Your task to perform on an android device: Add macbook pro to the cart on ebay.com Image 0: 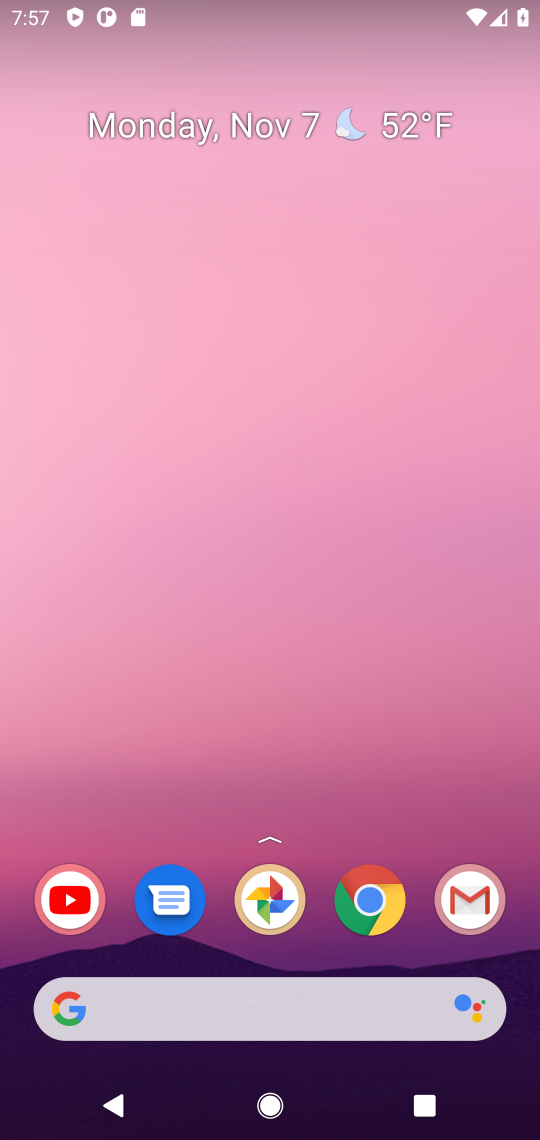
Step 0: click (300, 1024)
Your task to perform on an android device: Add macbook pro to the cart on ebay.com Image 1: 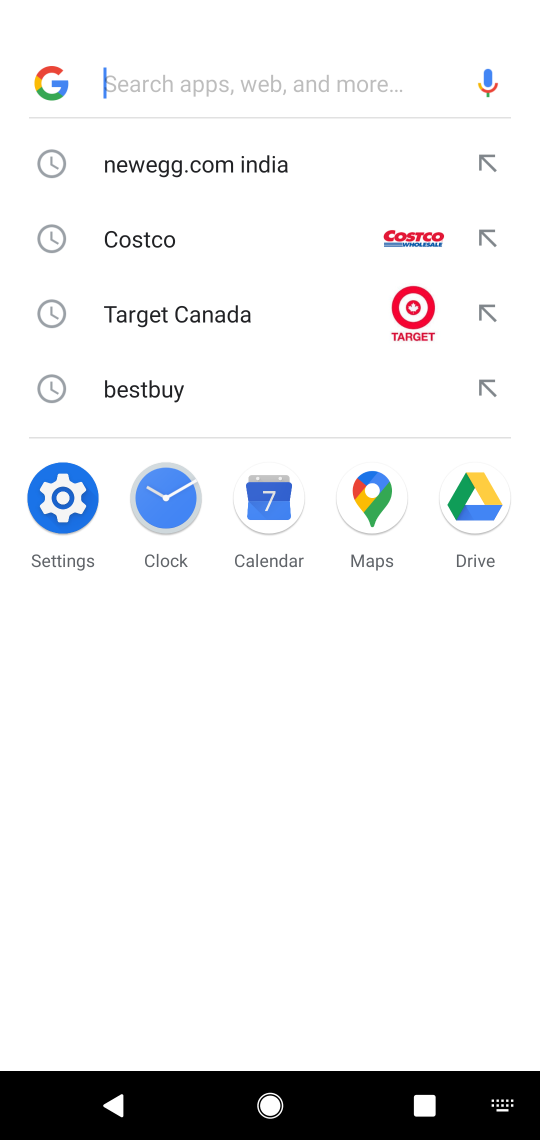
Step 1: type "ebay"
Your task to perform on an android device: Add macbook pro to the cart on ebay.com Image 2: 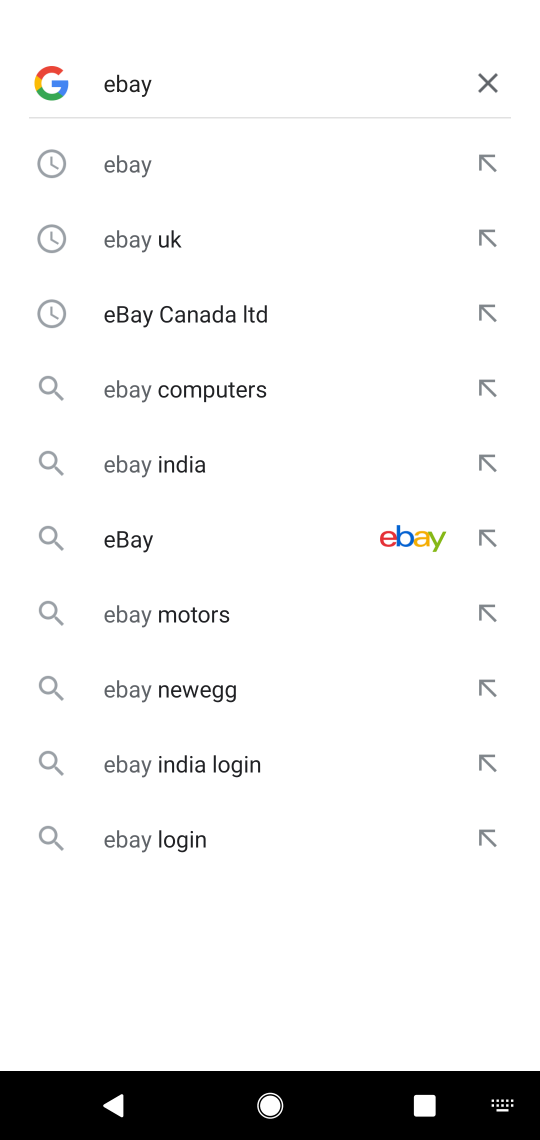
Step 2: click (300, 537)
Your task to perform on an android device: Add macbook pro to the cart on ebay.com Image 3: 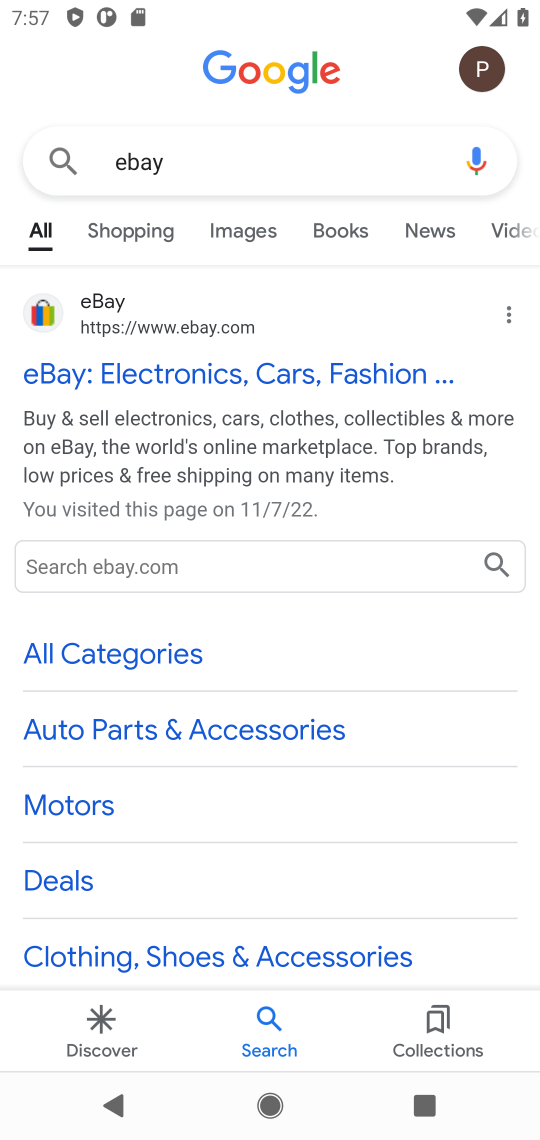
Step 3: click (187, 382)
Your task to perform on an android device: Add macbook pro to the cart on ebay.com Image 4: 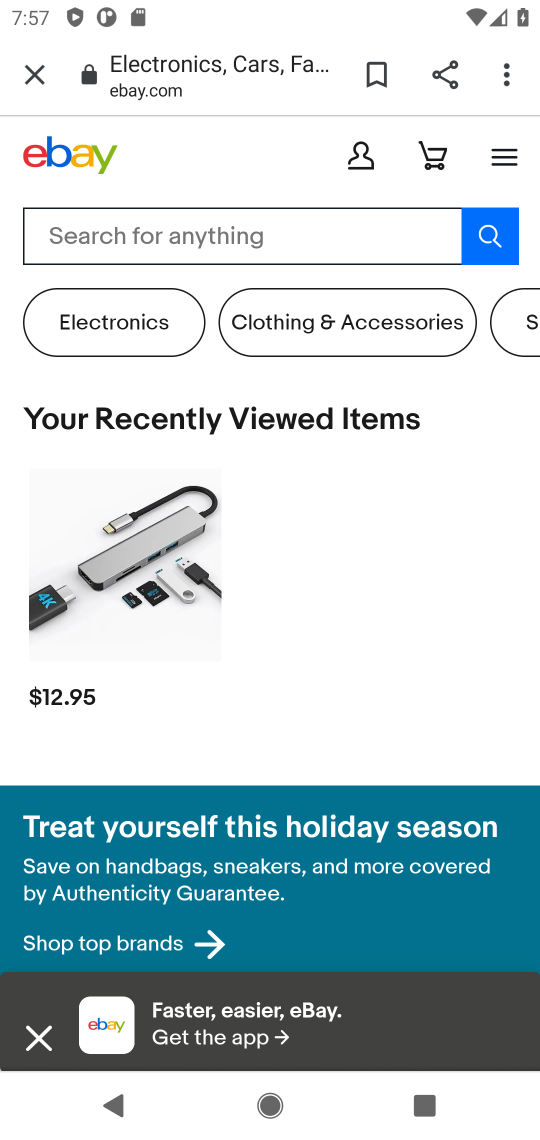
Step 4: click (330, 215)
Your task to perform on an android device: Add macbook pro to the cart on ebay.com Image 5: 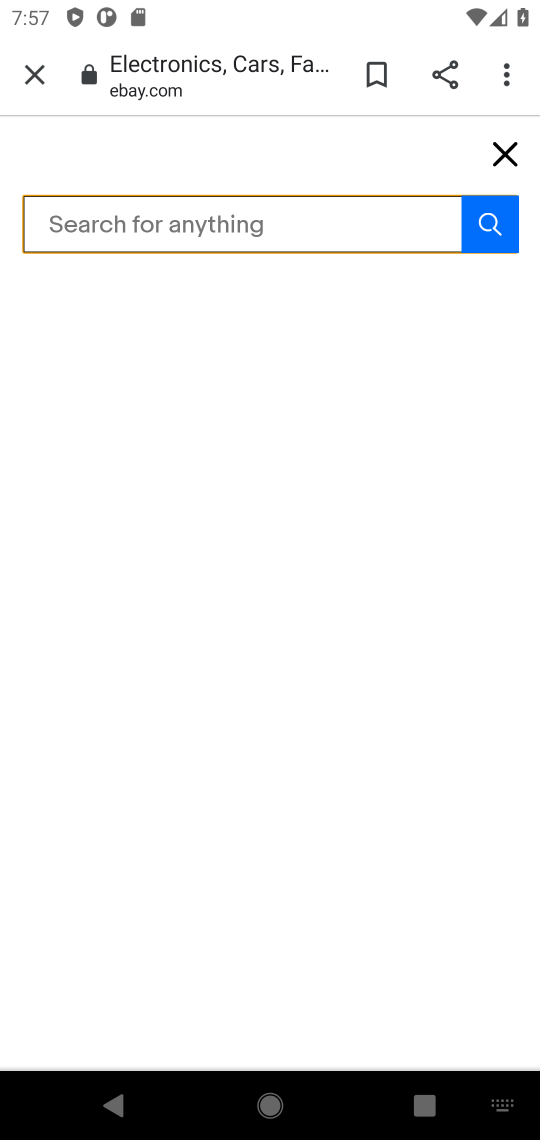
Step 5: type "macbook pro"
Your task to perform on an android device: Add macbook pro to the cart on ebay.com Image 6: 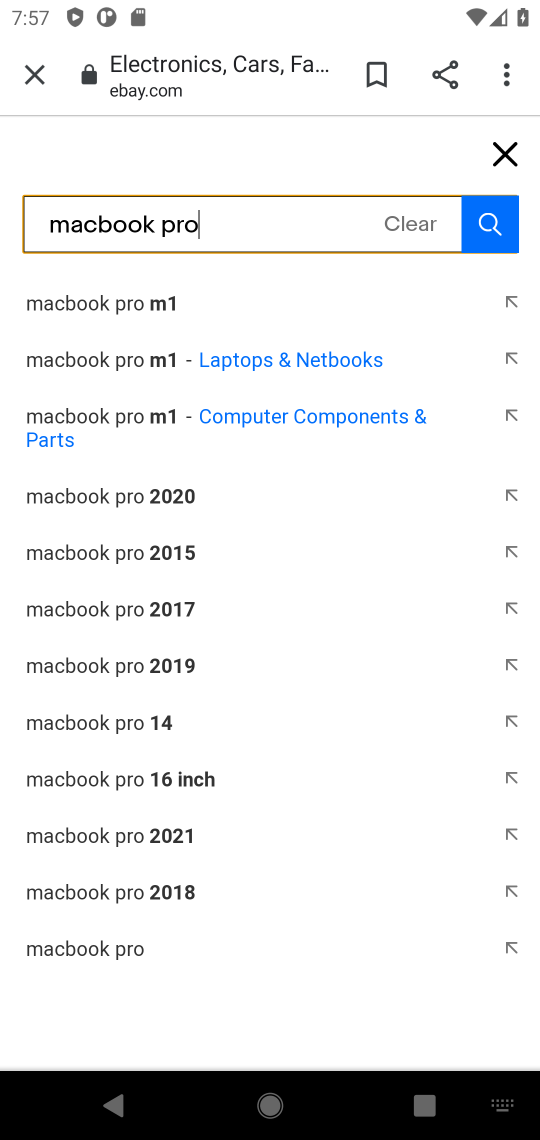
Step 6: click (479, 226)
Your task to perform on an android device: Add macbook pro to the cart on ebay.com Image 7: 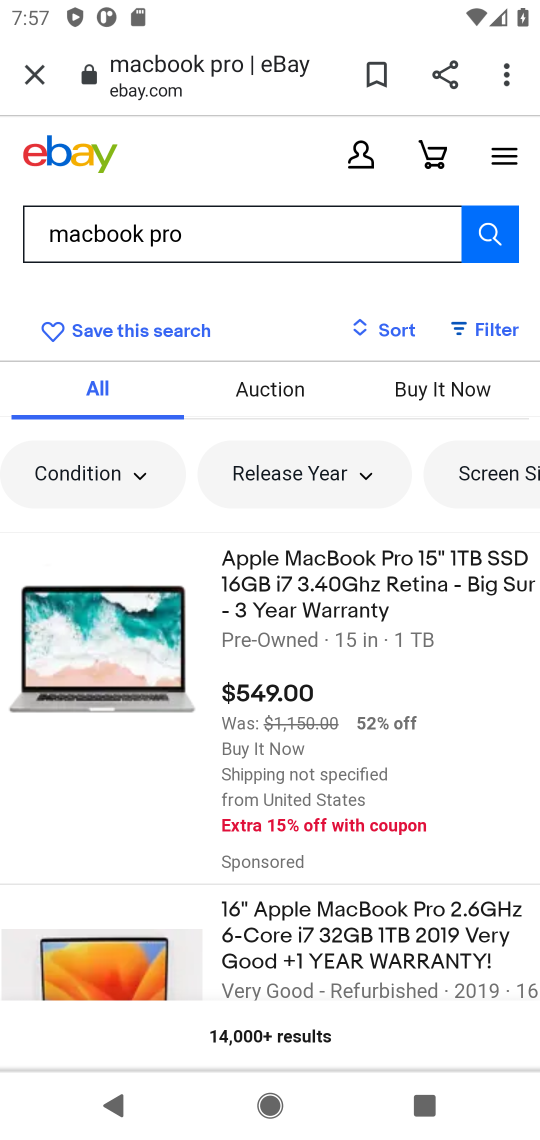
Step 7: click (237, 578)
Your task to perform on an android device: Add macbook pro to the cart on ebay.com Image 8: 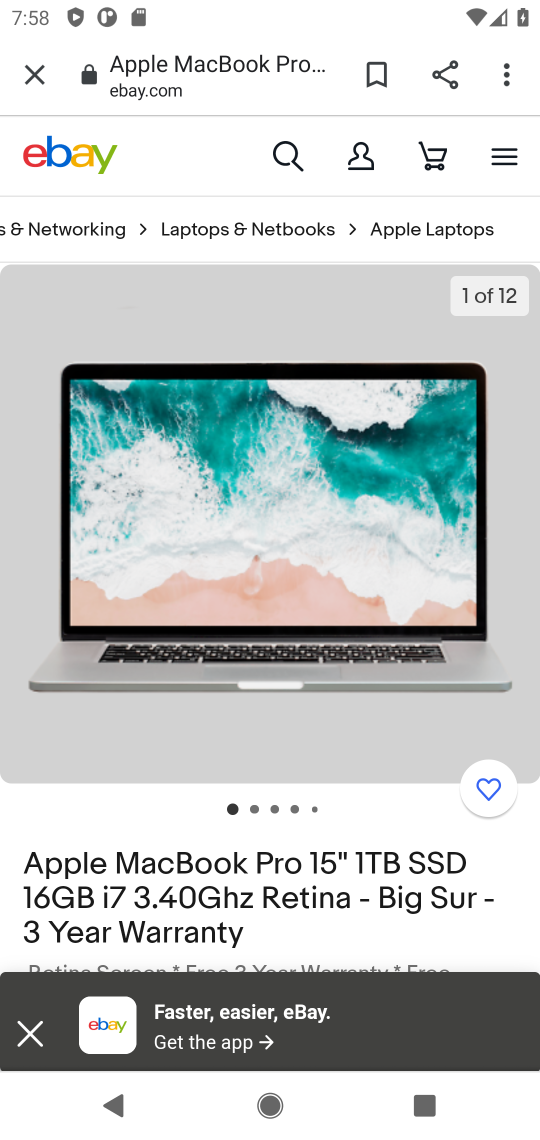
Step 8: drag from (400, 819) to (431, 343)
Your task to perform on an android device: Add macbook pro to the cart on ebay.com Image 9: 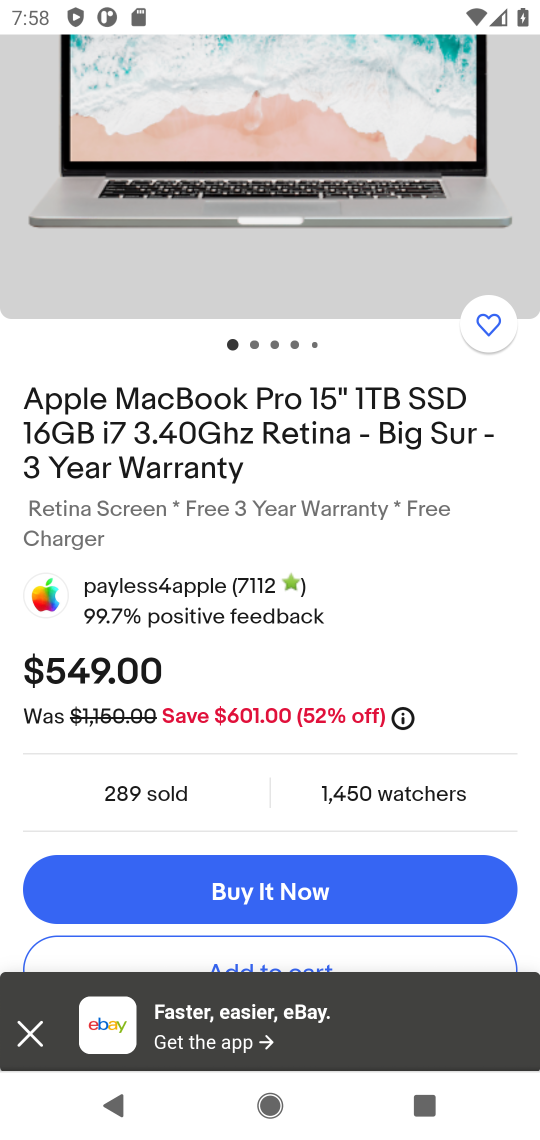
Step 9: click (313, 948)
Your task to perform on an android device: Add macbook pro to the cart on ebay.com Image 10: 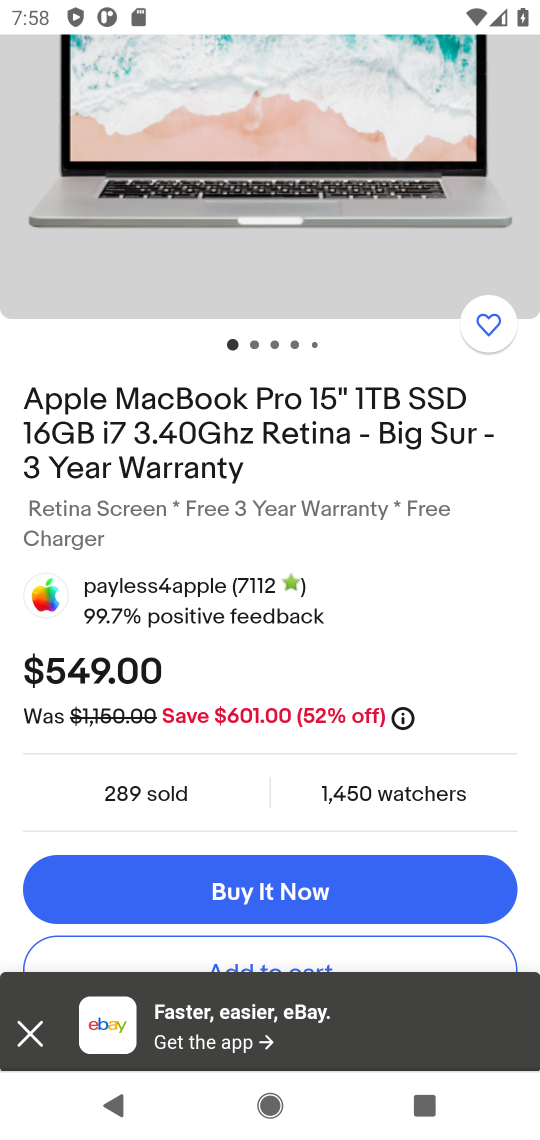
Step 10: task complete